Your task to perform on an android device: Go to wifi settings Image 0: 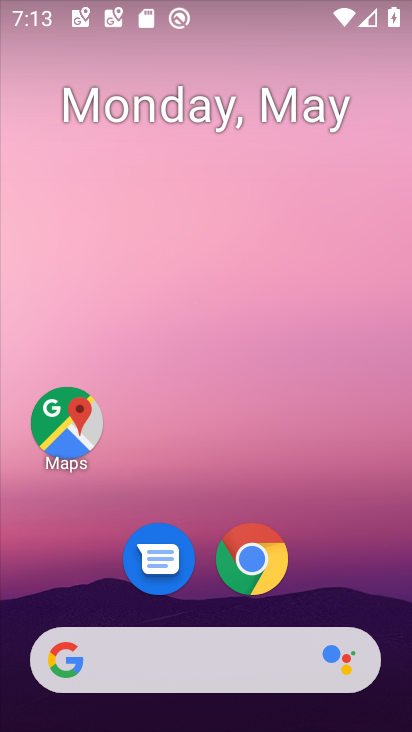
Step 0: drag from (402, 617) to (352, 111)
Your task to perform on an android device: Go to wifi settings Image 1: 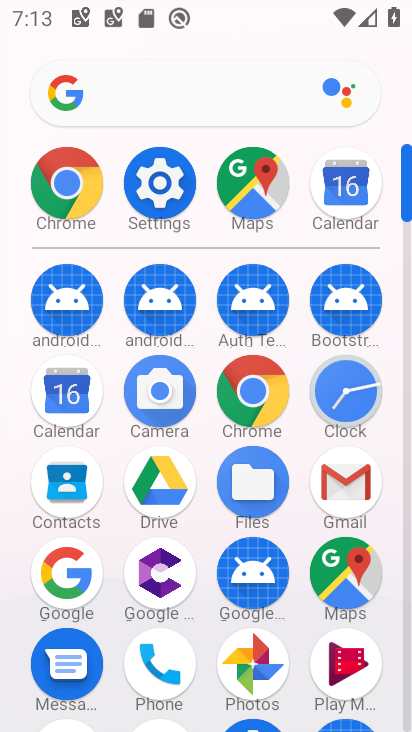
Step 1: click (151, 182)
Your task to perform on an android device: Go to wifi settings Image 2: 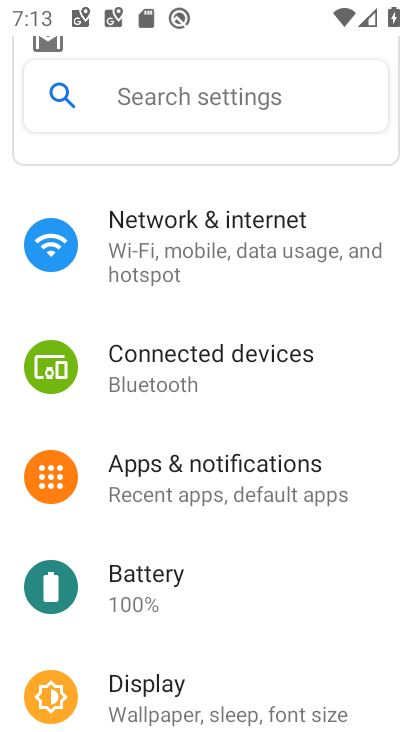
Step 2: click (143, 256)
Your task to perform on an android device: Go to wifi settings Image 3: 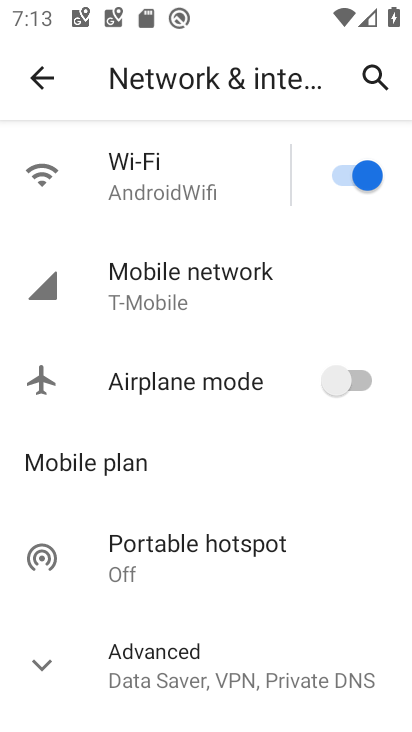
Step 3: click (151, 204)
Your task to perform on an android device: Go to wifi settings Image 4: 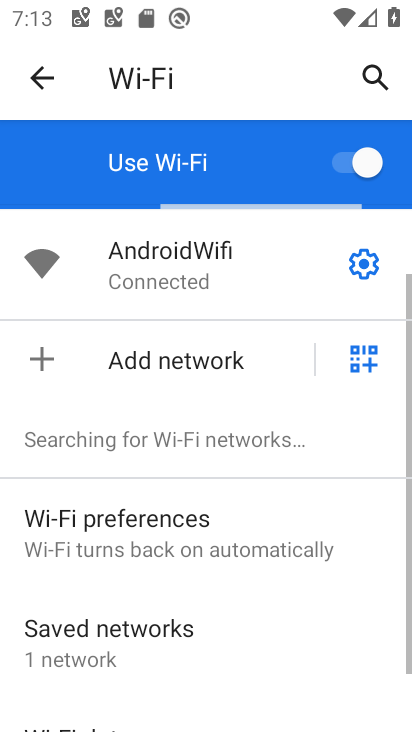
Step 4: task complete